Your task to perform on an android device: Go to Google maps Image 0: 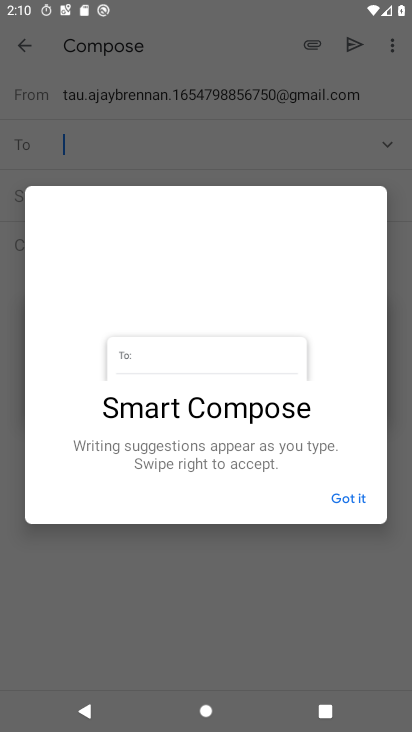
Step 0: press home button
Your task to perform on an android device: Go to Google maps Image 1: 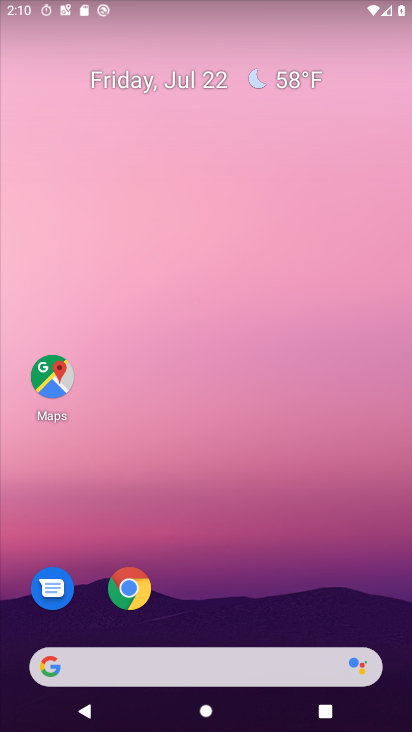
Step 1: drag from (318, 199) to (315, 19)
Your task to perform on an android device: Go to Google maps Image 2: 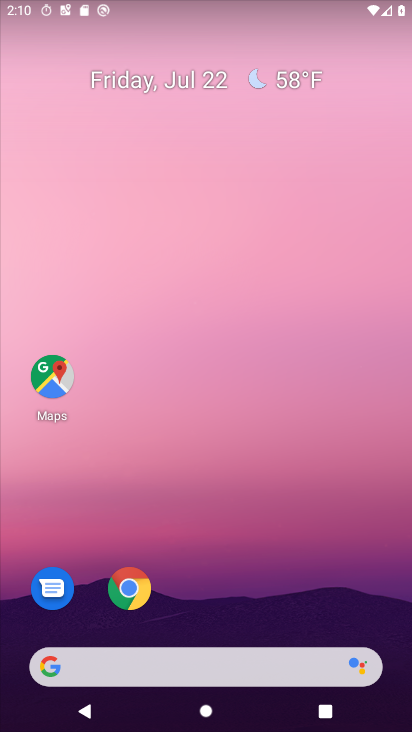
Step 2: drag from (282, 613) to (291, 369)
Your task to perform on an android device: Go to Google maps Image 3: 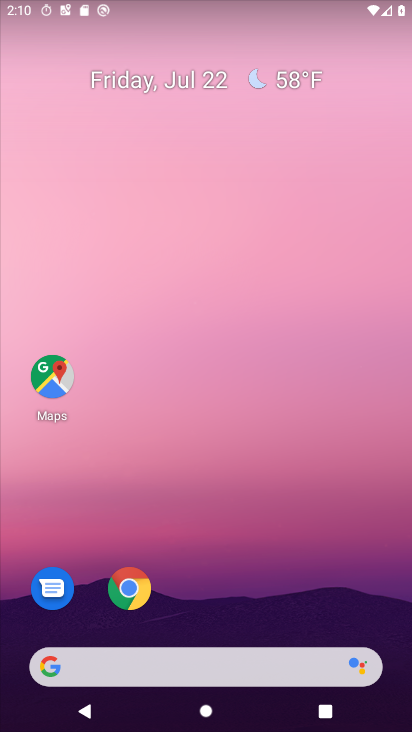
Step 3: click (26, 362)
Your task to perform on an android device: Go to Google maps Image 4: 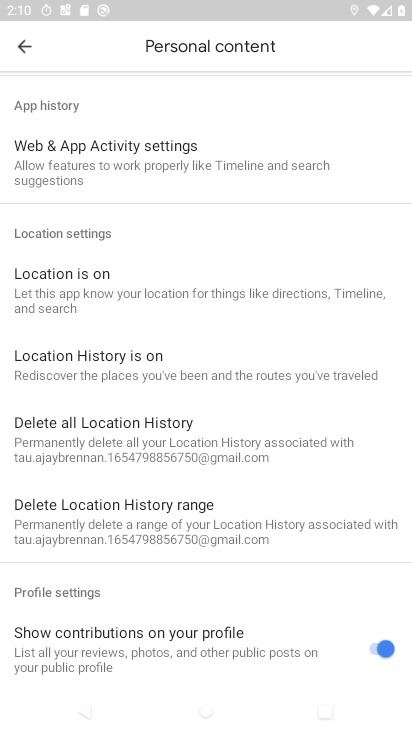
Step 4: task complete